Your task to perform on an android device: Open accessibility settings Image 0: 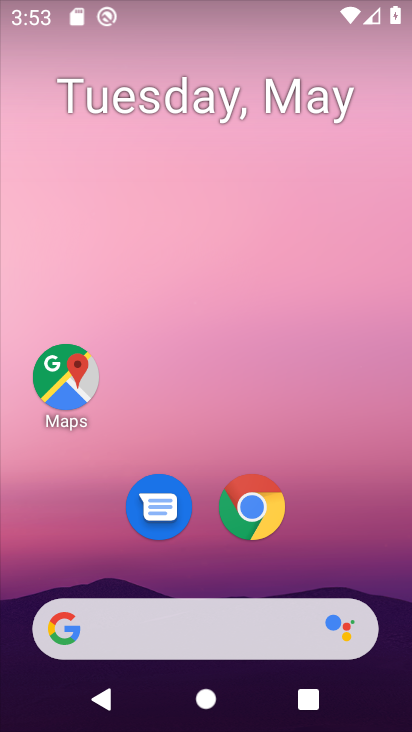
Step 0: drag from (329, 544) to (295, 2)
Your task to perform on an android device: Open accessibility settings Image 1: 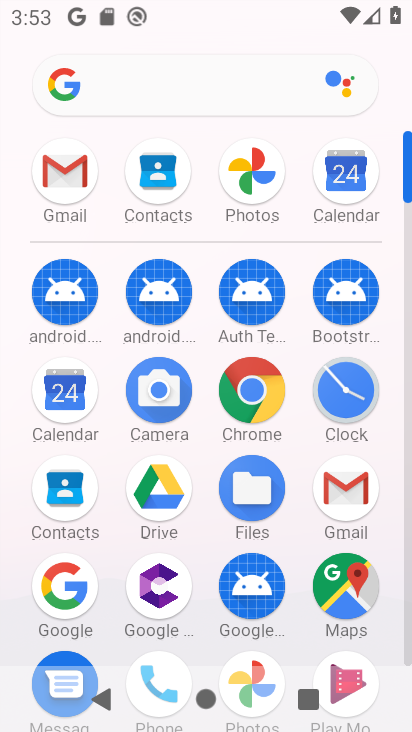
Step 1: drag from (111, 501) to (131, 284)
Your task to perform on an android device: Open accessibility settings Image 2: 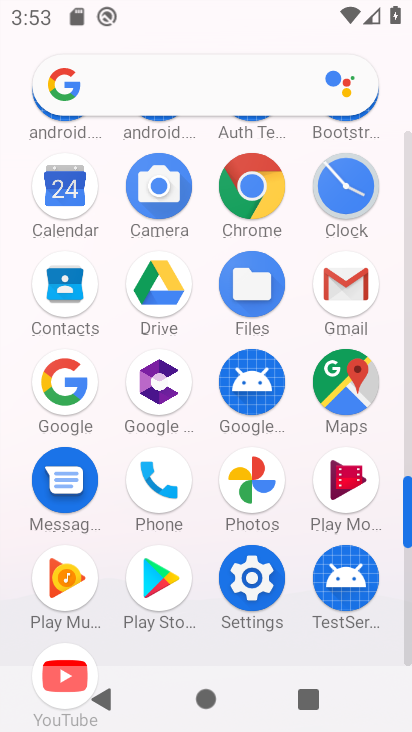
Step 2: click (253, 587)
Your task to perform on an android device: Open accessibility settings Image 3: 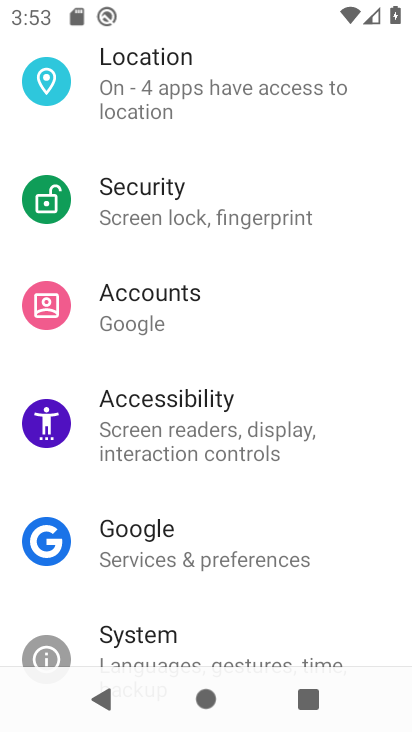
Step 3: click (167, 399)
Your task to perform on an android device: Open accessibility settings Image 4: 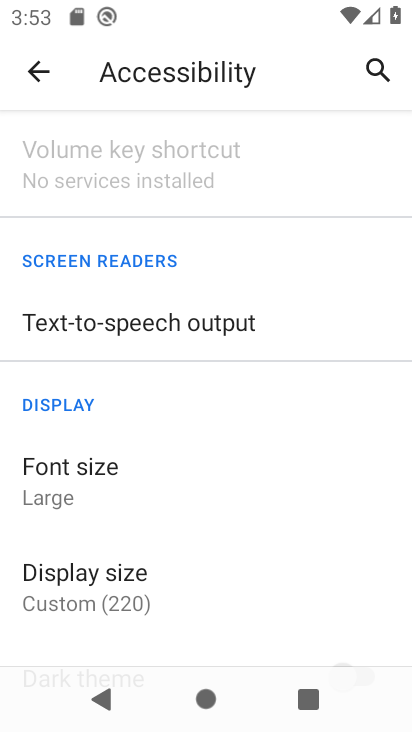
Step 4: task complete